Your task to perform on an android device: Open Android settings Image 0: 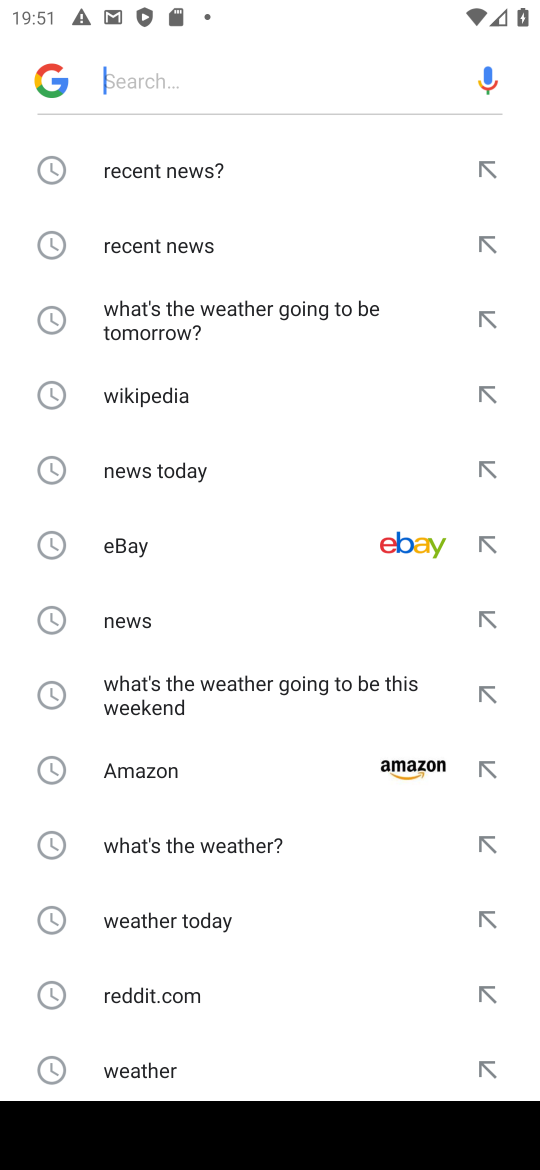
Step 0: press home button
Your task to perform on an android device: Open Android settings Image 1: 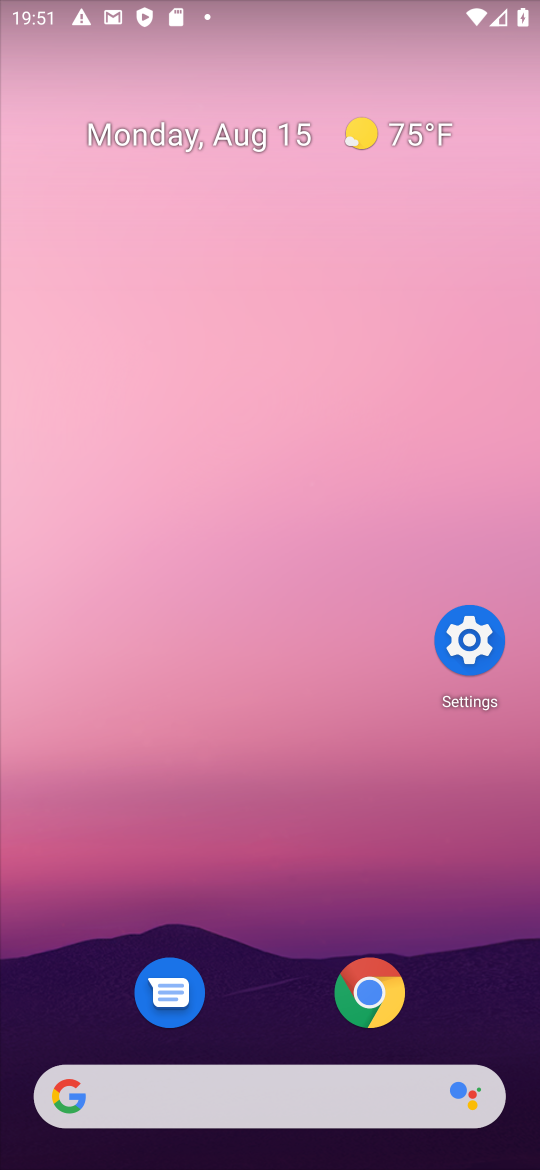
Step 1: click (465, 622)
Your task to perform on an android device: Open Android settings Image 2: 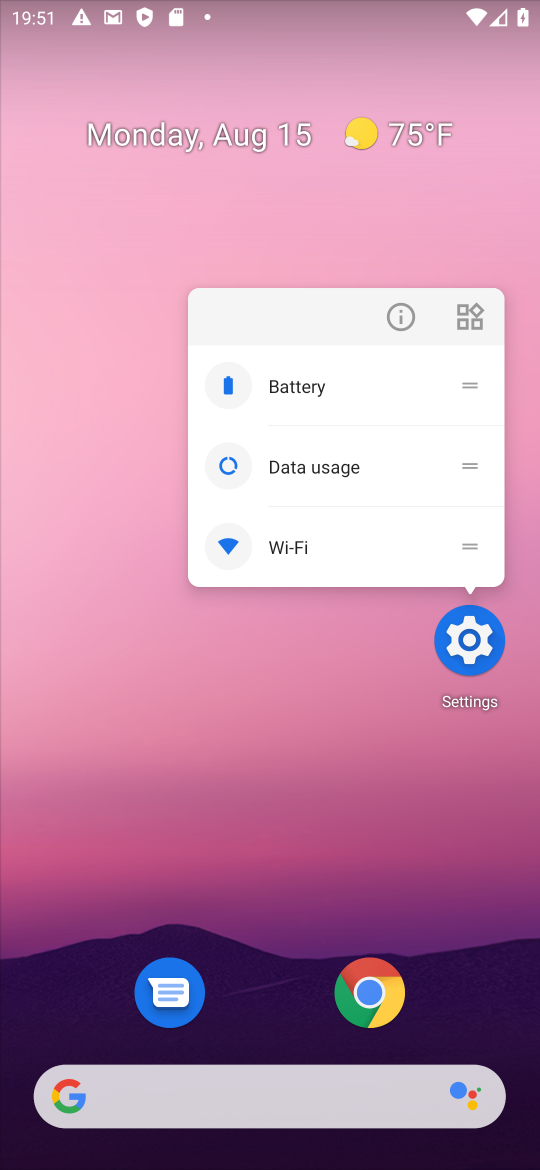
Step 2: click (481, 642)
Your task to perform on an android device: Open Android settings Image 3: 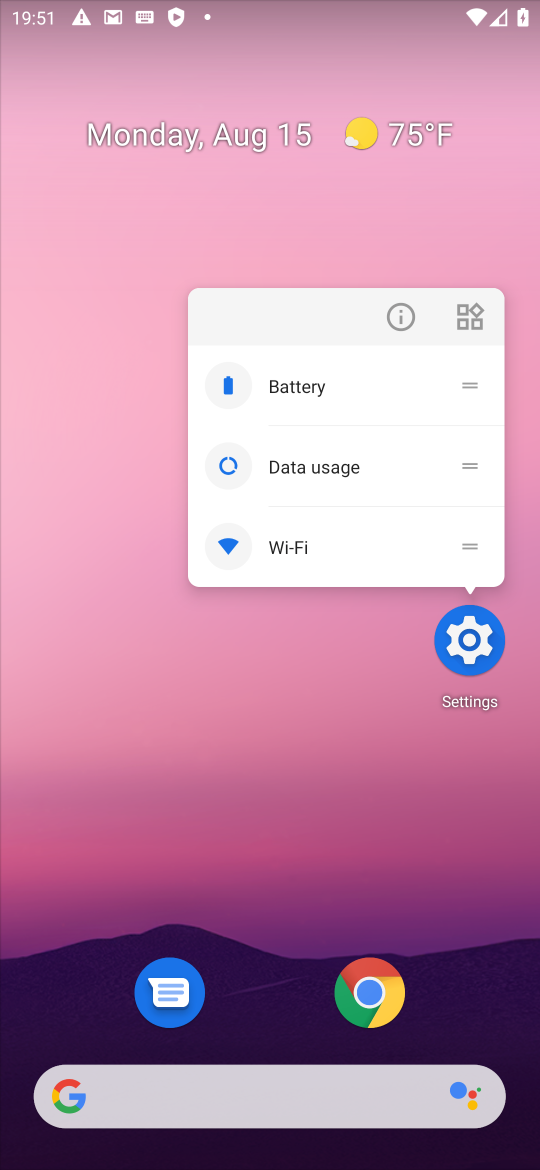
Step 3: click (466, 643)
Your task to perform on an android device: Open Android settings Image 4: 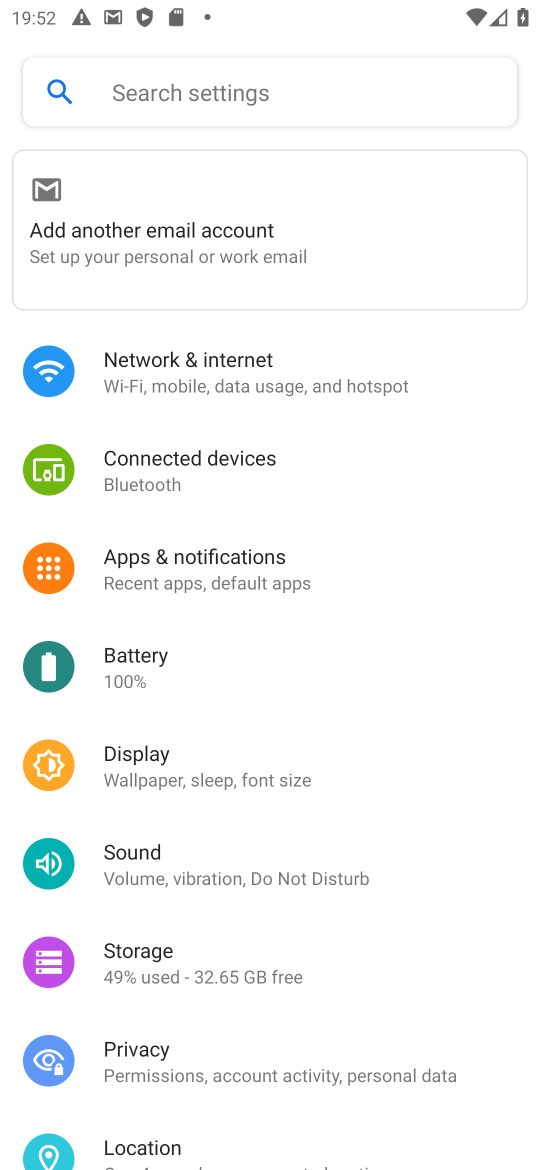
Step 4: task complete